Your task to perform on an android device: Open the stopwatch Image 0: 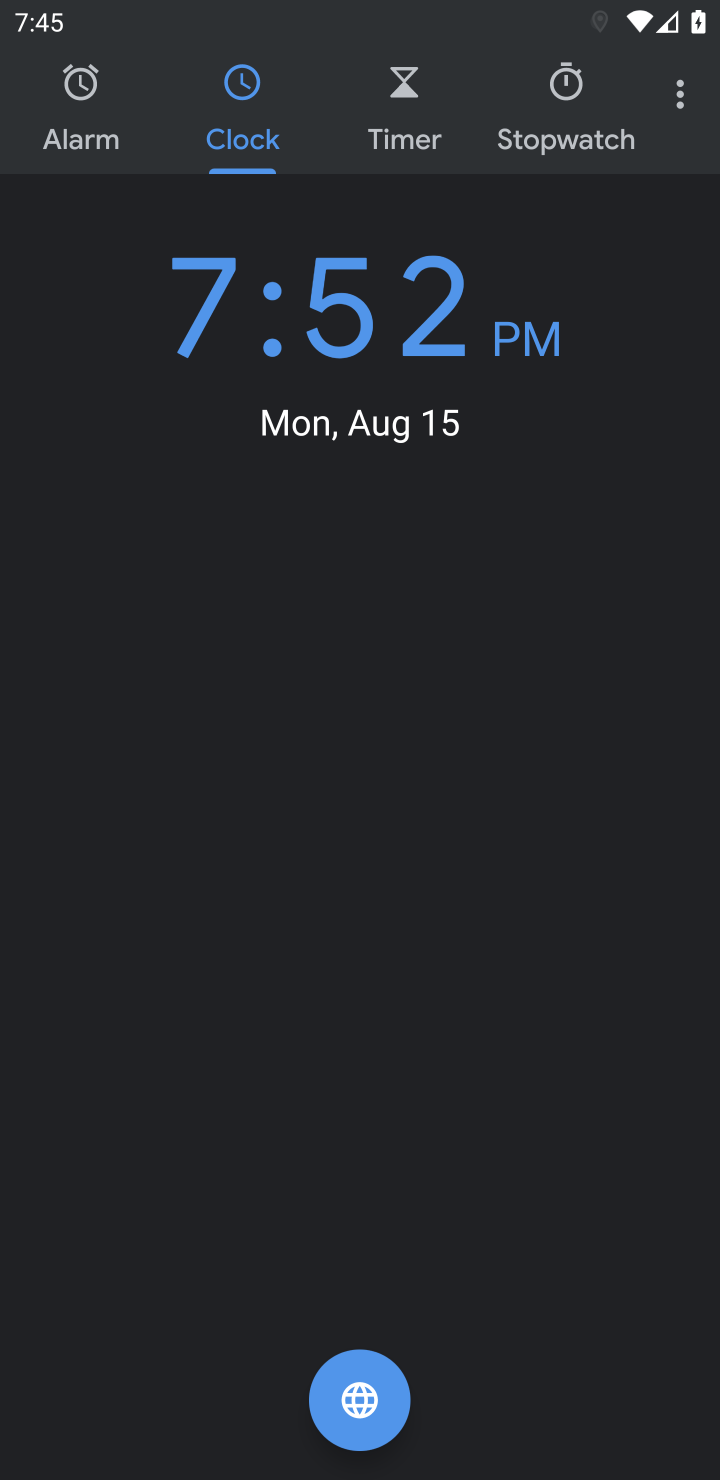
Step 0: press home button
Your task to perform on an android device: Open the stopwatch Image 1: 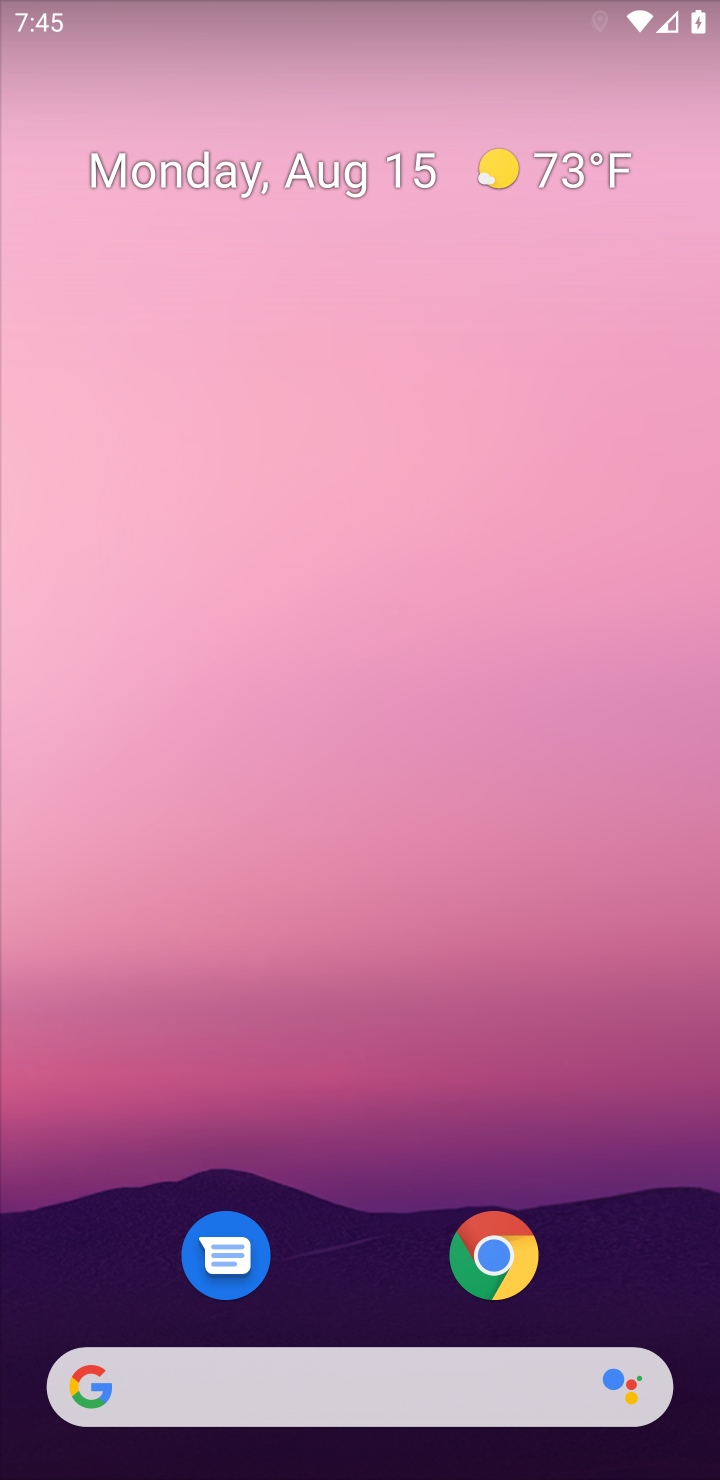
Step 1: drag from (359, 1311) to (418, 126)
Your task to perform on an android device: Open the stopwatch Image 2: 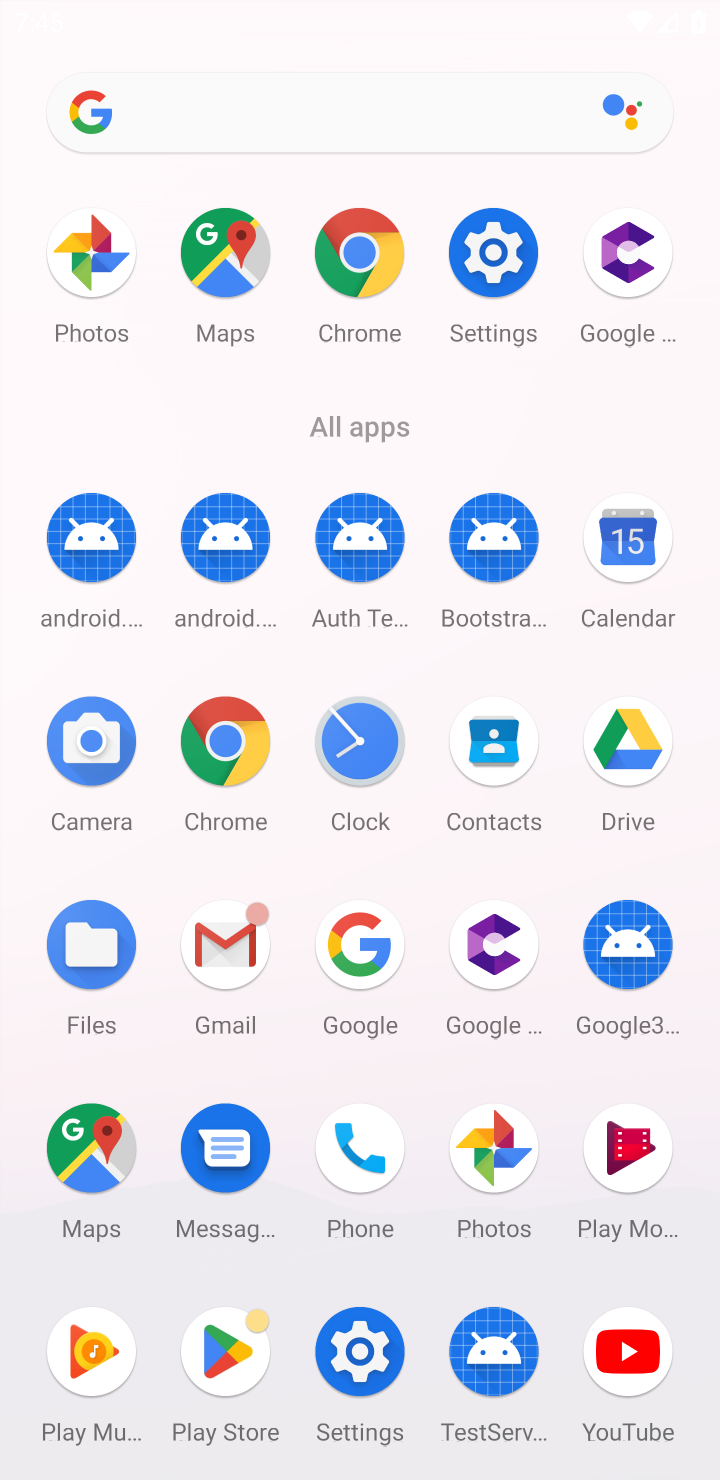
Step 2: click (349, 726)
Your task to perform on an android device: Open the stopwatch Image 3: 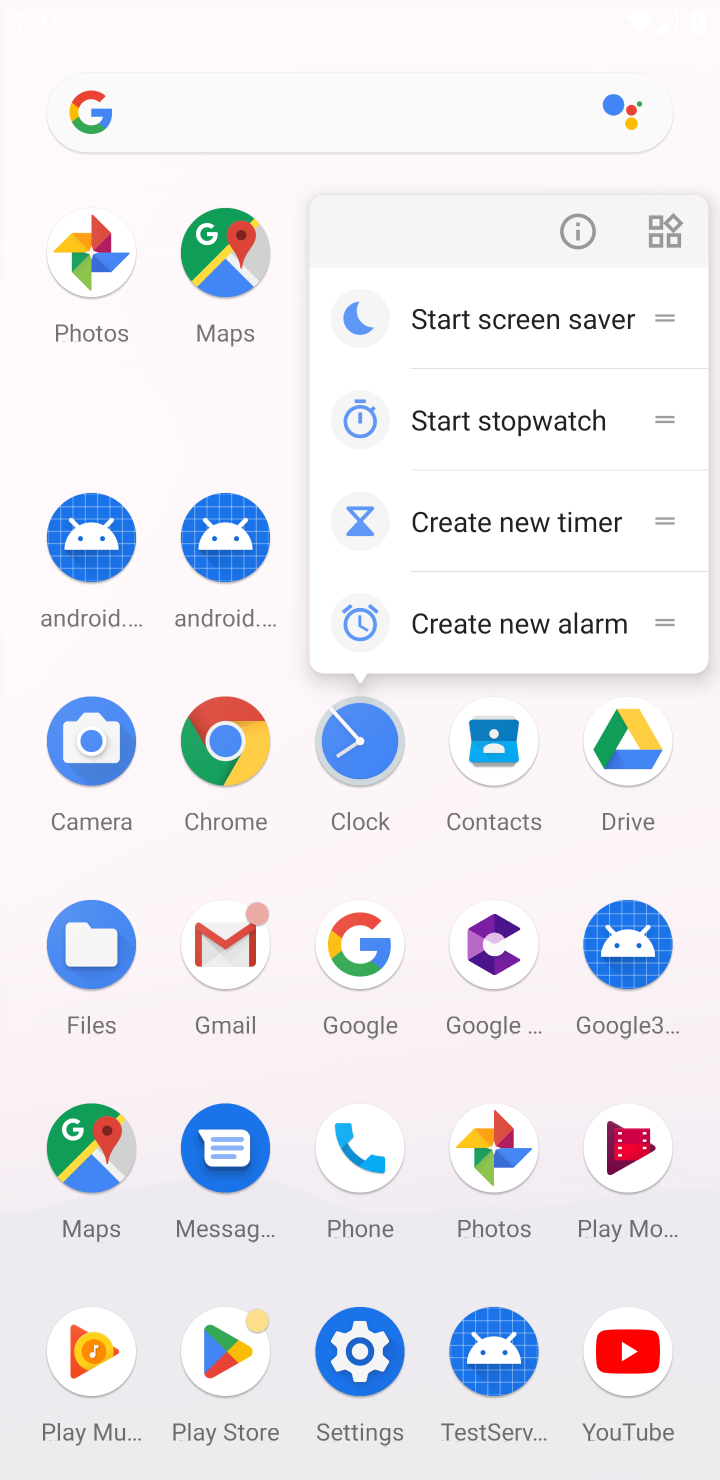
Step 3: click (348, 731)
Your task to perform on an android device: Open the stopwatch Image 4: 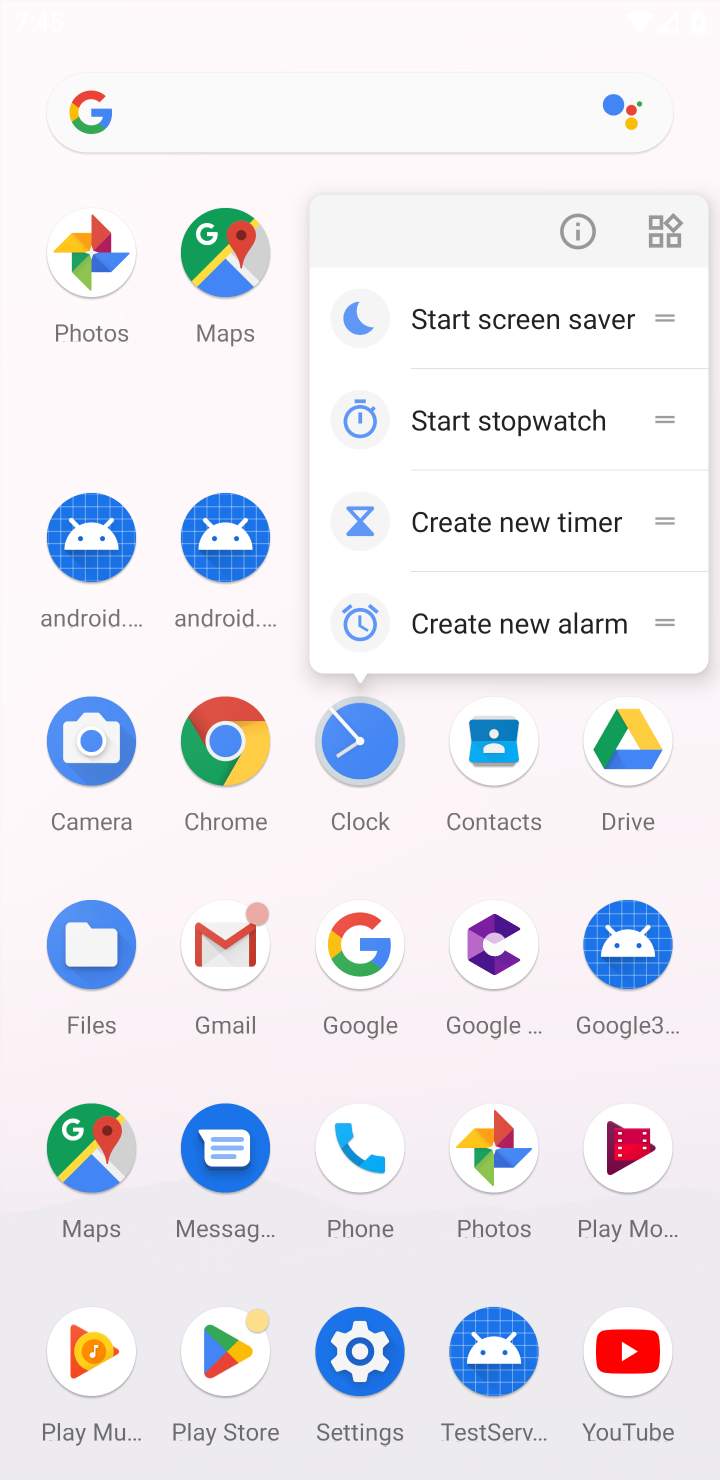
Step 4: click (358, 730)
Your task to perform on an android device: Open the stopwatch Image 5: 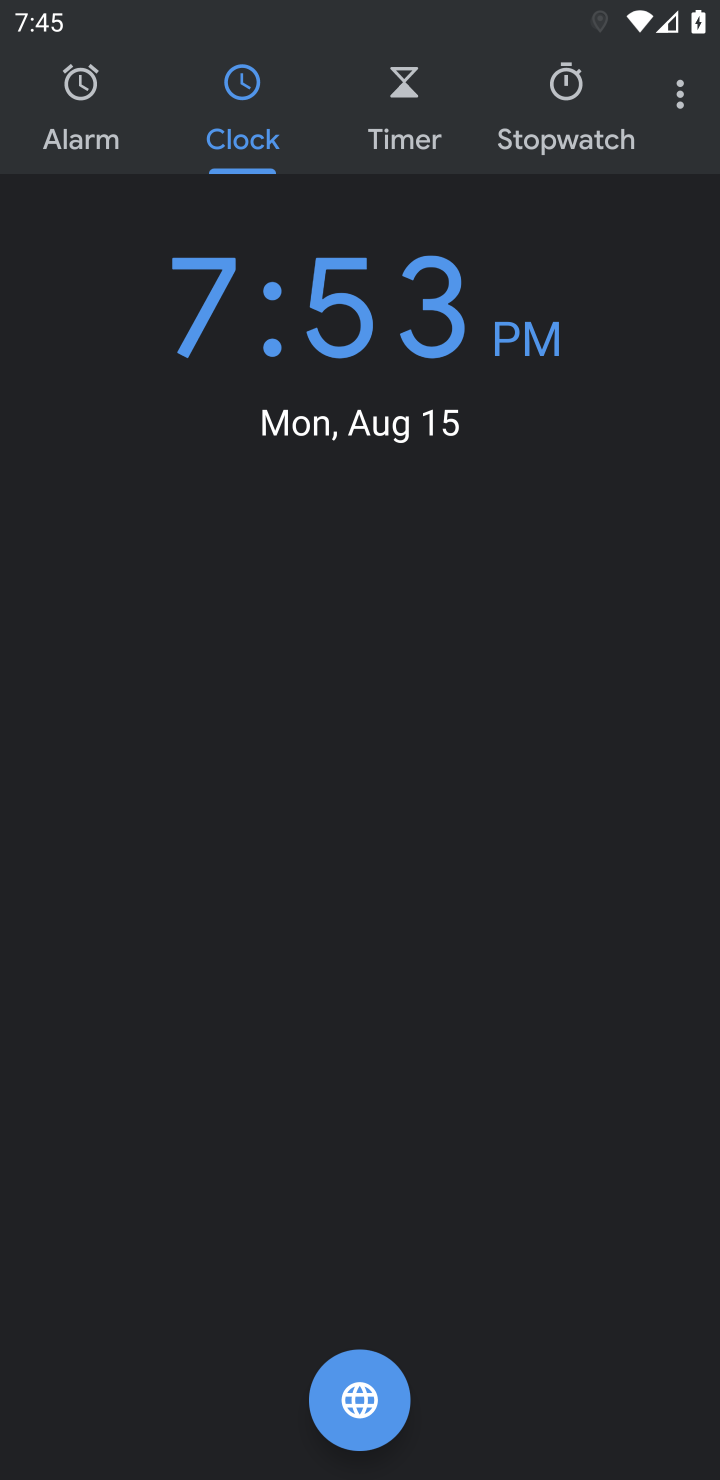
Step 5: click (573, 87)
Your task to perform on an android device: Open the stopwatch Image 6: 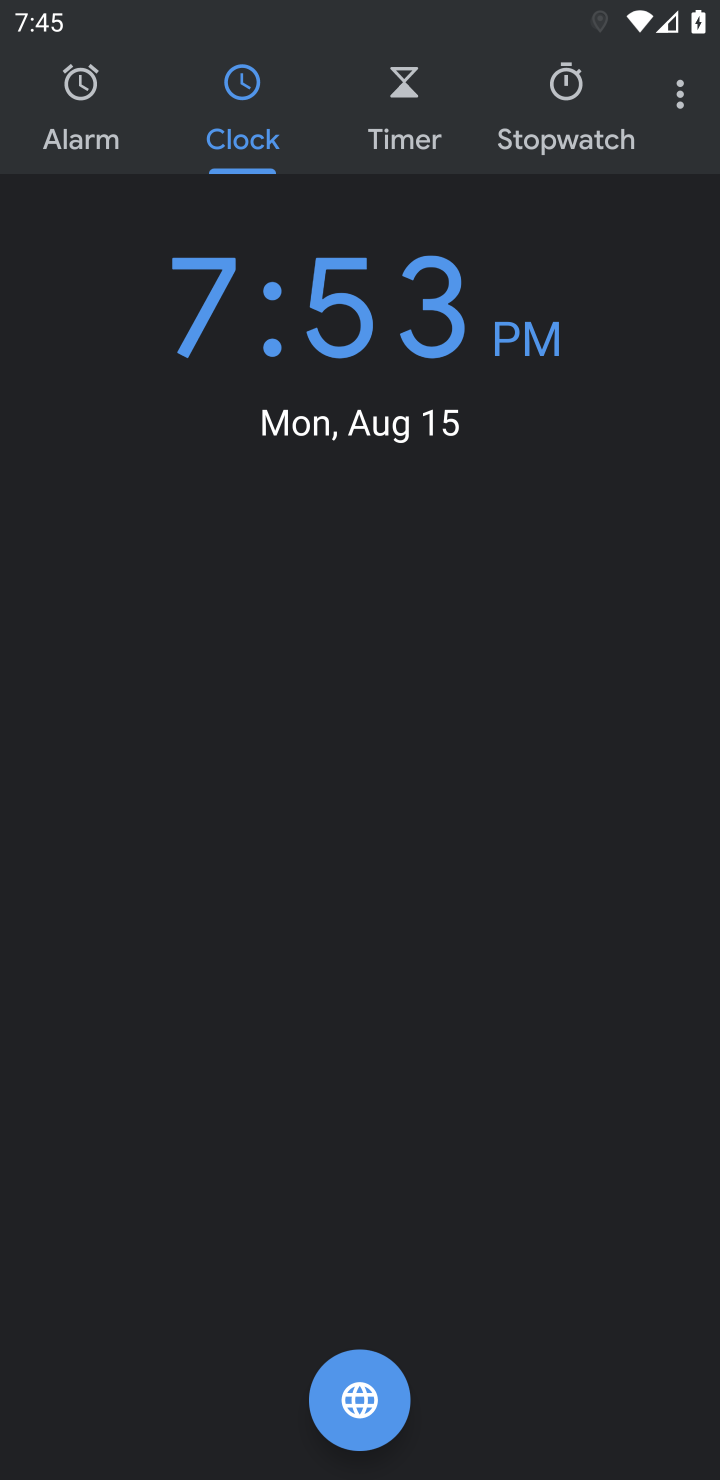
Step 6: click (548, 108)
Your task to perform on an android device: Open the stopwatch Image 7: 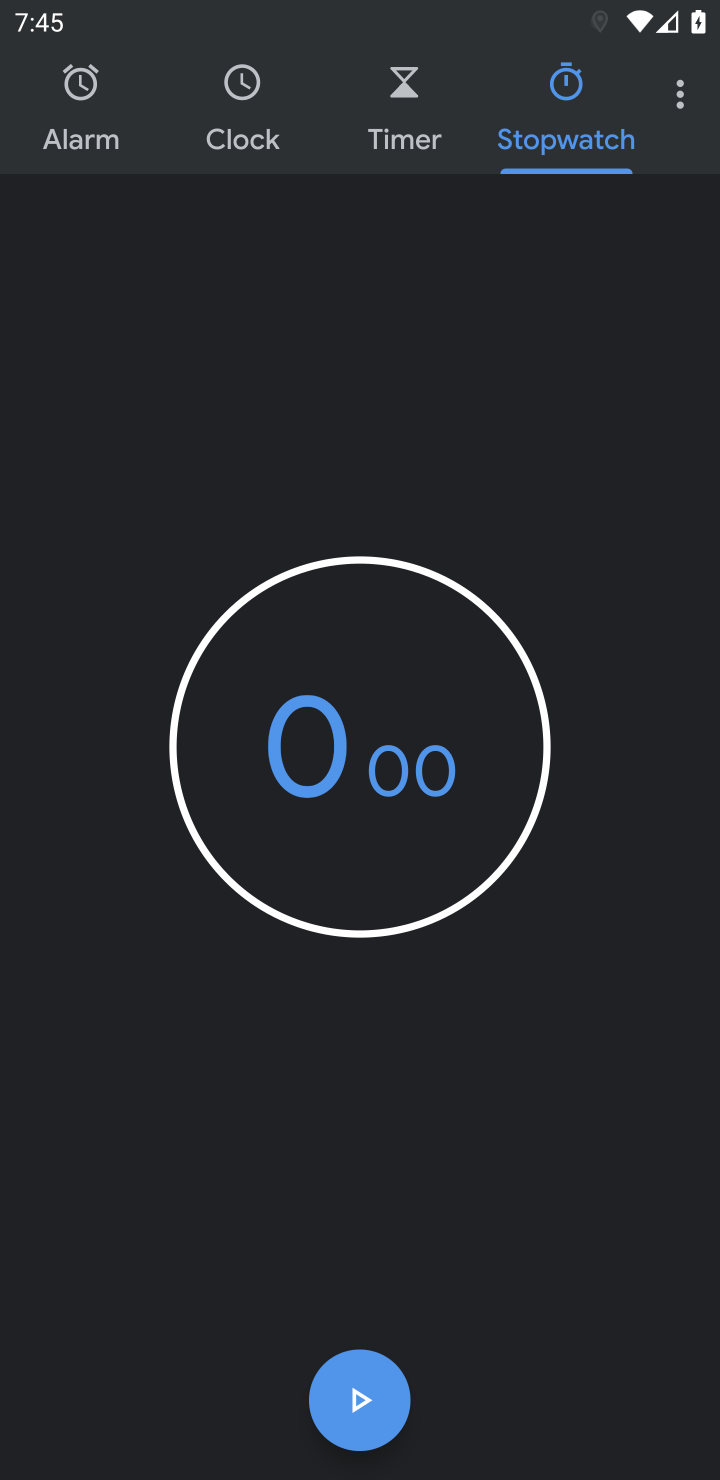
Step 7: click (358, 1392)
Your task to perform on an android device: Open the stopwatch Image 8: 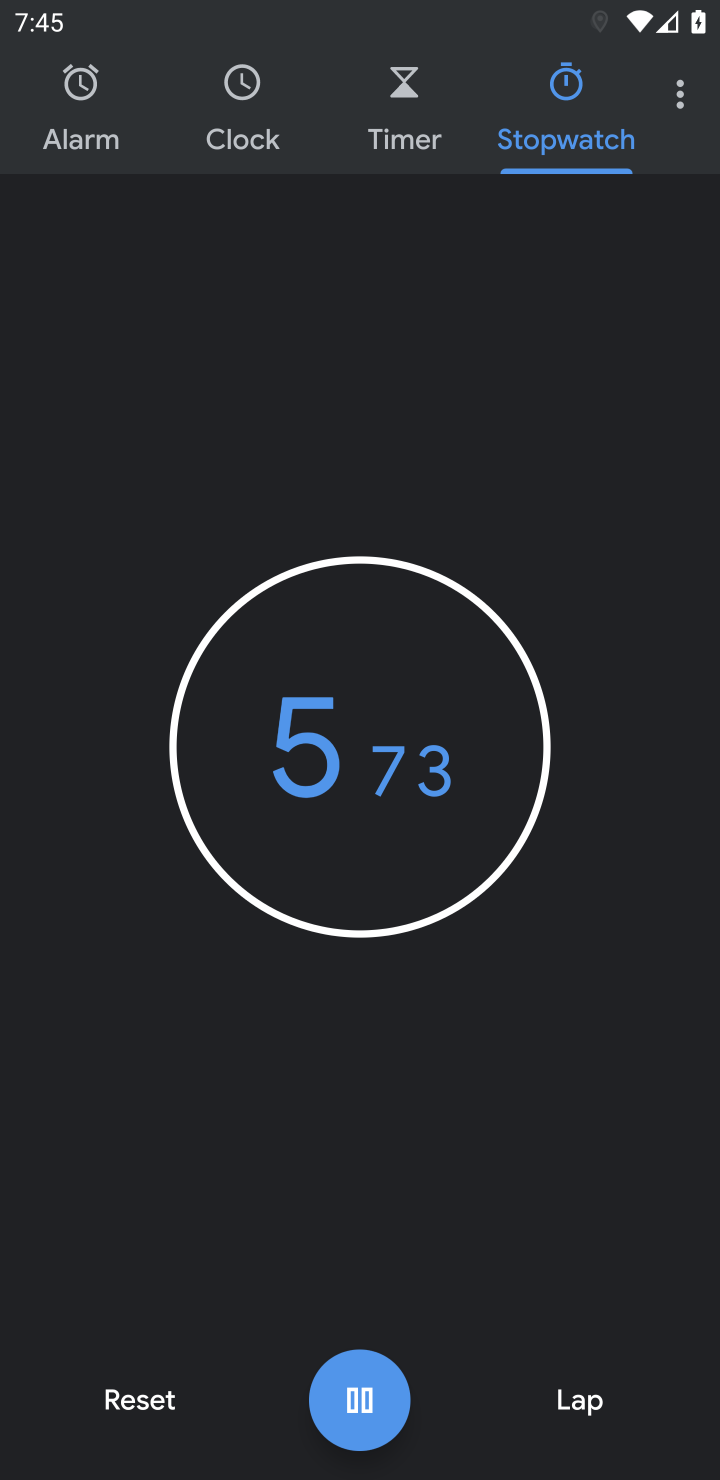
Step 8: task complete